Your task to perform on an android device: Find coffee shops on Maps Image 0: 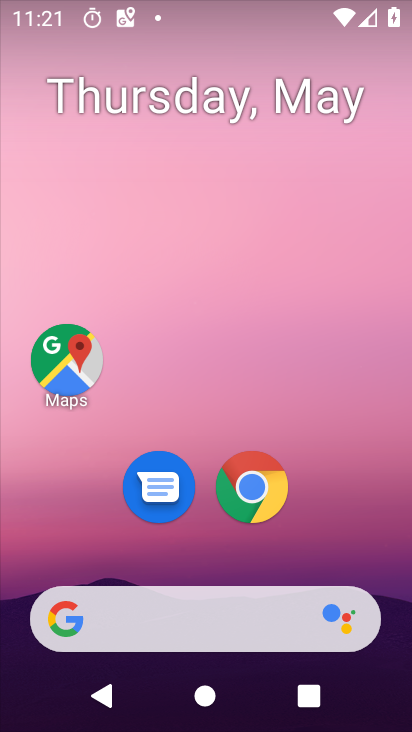
Step 0: click (78, 365)
Your task to perform on an android device: Find coffee shops on Maps Image 1: 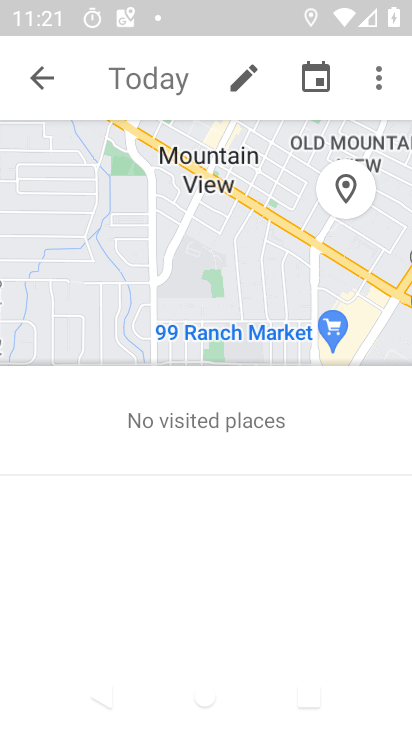
Step 1: click (46, 81)
Your task to perform on an android device: Find coffee shops on Maps Image 2: 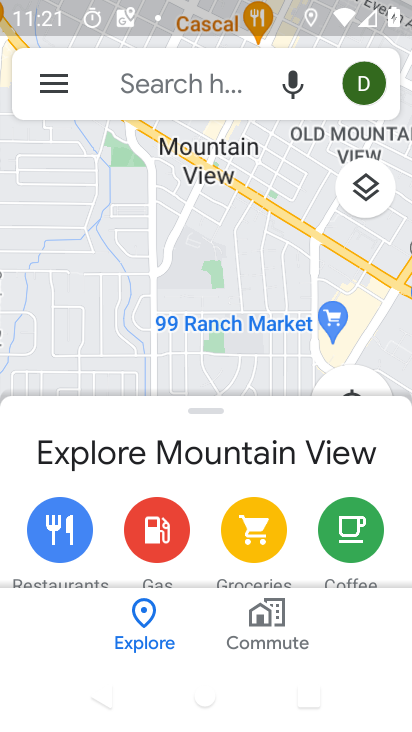
Step 2: click (196, 88)
Your task to perform on an android device: Find coffee shops on Maps Image 3: 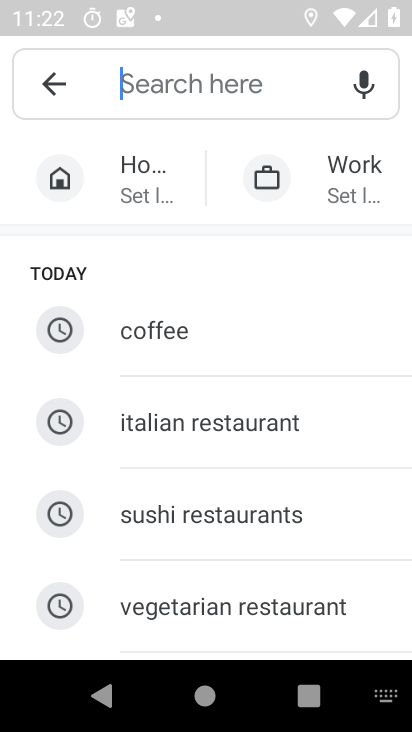
Step 3: type "coffee shops"
Your task to perform on an android device: Find coffee shops on Maps Image 4: 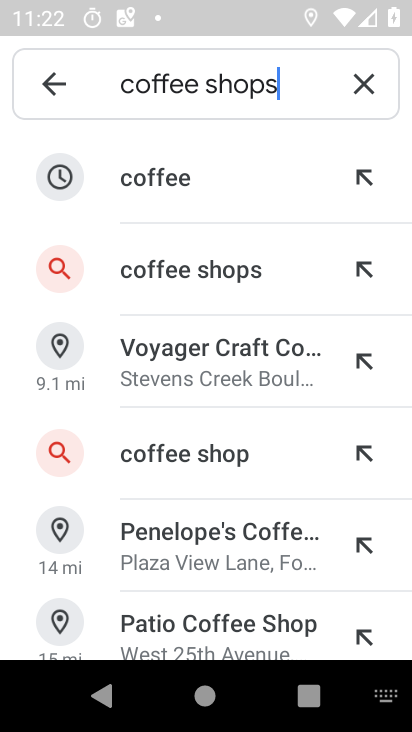
Step 4: click (209, 271)
Your task to perform on an android device: Find coffee shops on Maps Image 5: 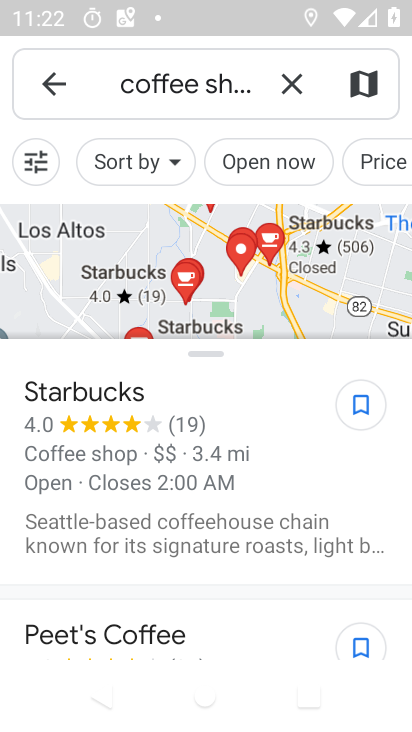
Step 5: task complete